Your task to perform on an android device: When is my next appointment? Image 0: 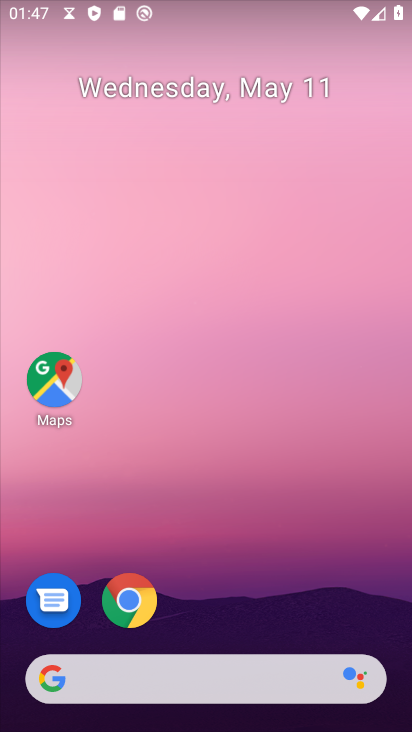
Step 0: drag from (216, 599) to (291, 269)
Your task to perform on an android device: When is my next appointment? Image 1: 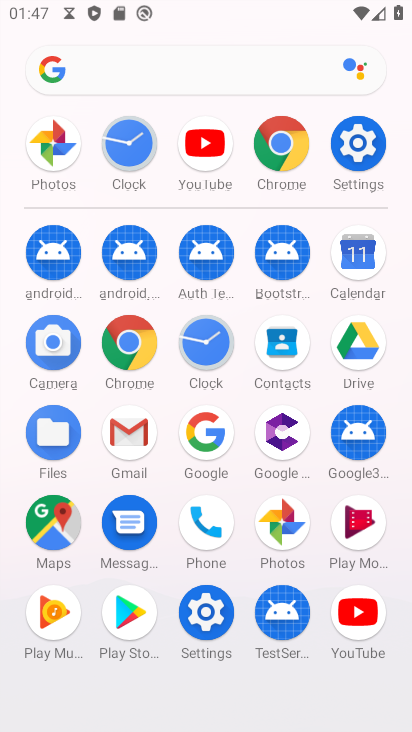
Step 1: click (354, 240)
Your task to perform on an android device: When is my next appointment? Image 2: 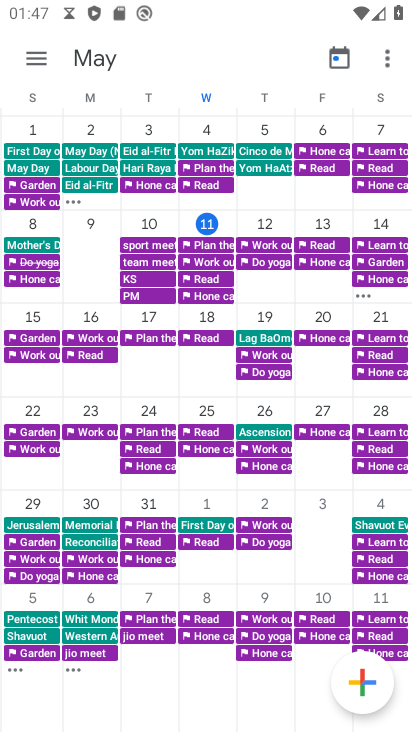
Step 2: click (266, 227)
Your task to perform on an android device: When is my next appointment? Image 3: 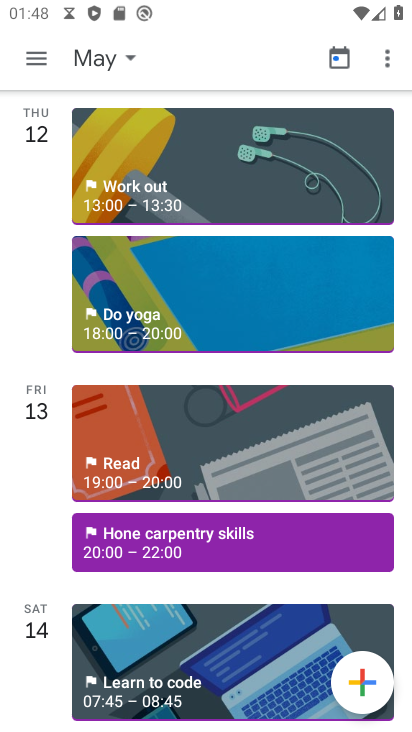
Step 3: task complete